Your task to perform on an android device: Turn off the flashlight Image 0: 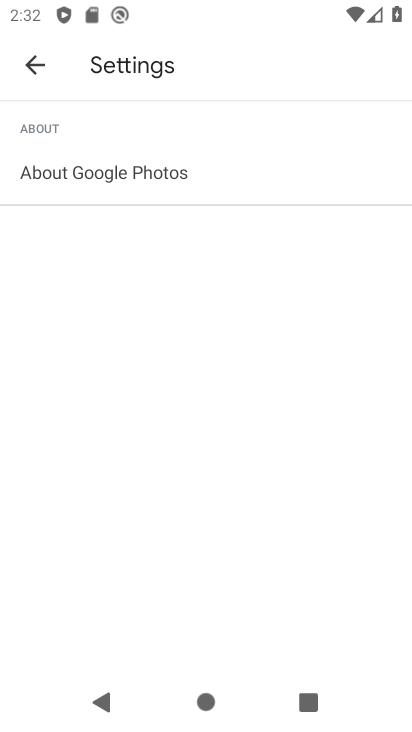
Step 0: press back button
Your task to perform on an android device: Turn off the flashlight Image 1: 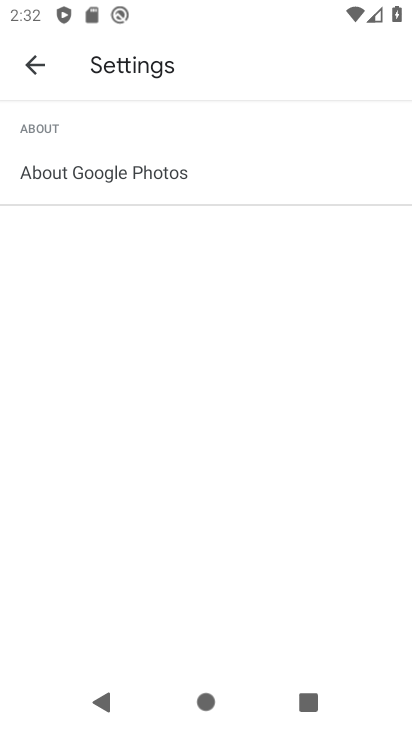
Step 1: task complete